Your task to perform on an android device: toggle improve location accuracy Image 0: 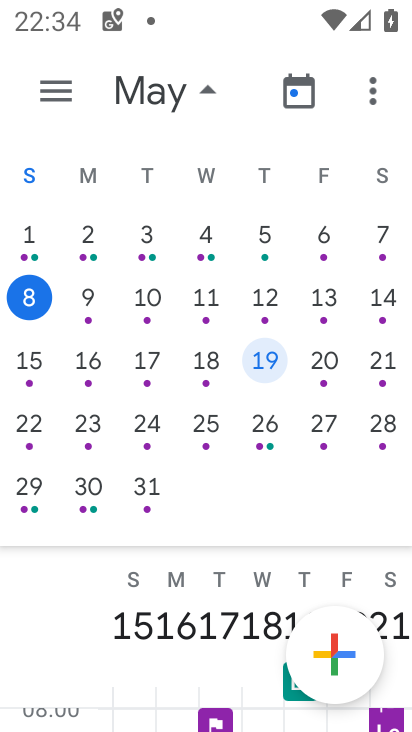
Step 0: press home button
Your task to perform on an android device: toggle improve location accuracy Image 1: 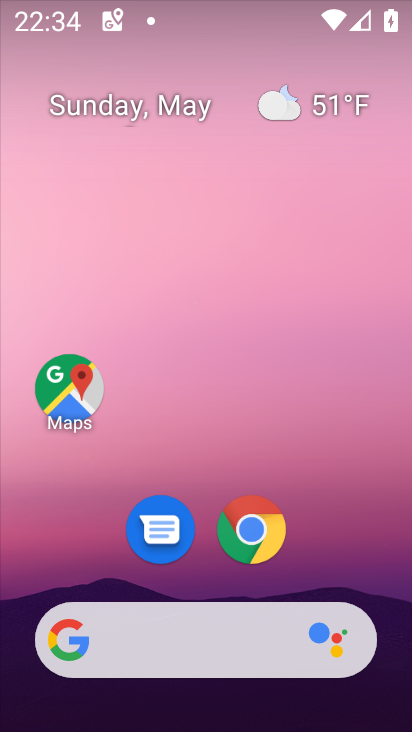
Step 1: drag from (250, 594) to (298, 136)
Your task to perform on an android device: toggle improve location accuracy Image 2: 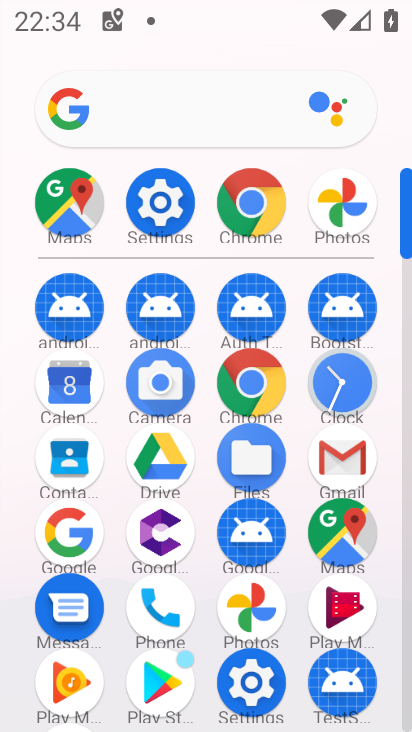
Step 2: click (229, 677)
Your task to perform on an android device: toggle improve location accuracy Image 3: 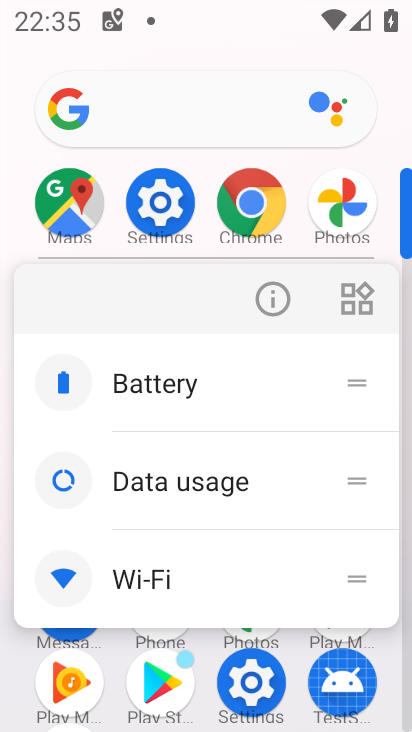
Step 3: click (253, 683)
Your task to perform on an android device: toggle improve location accuracy Image 4: 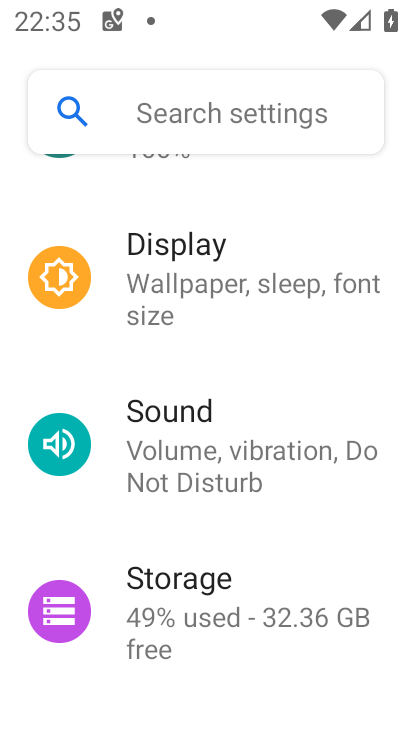
Step 4: drag from (241, 701) to (245, 382)
Your task to perform on an android device: toggle improve location accuracy Image 5: 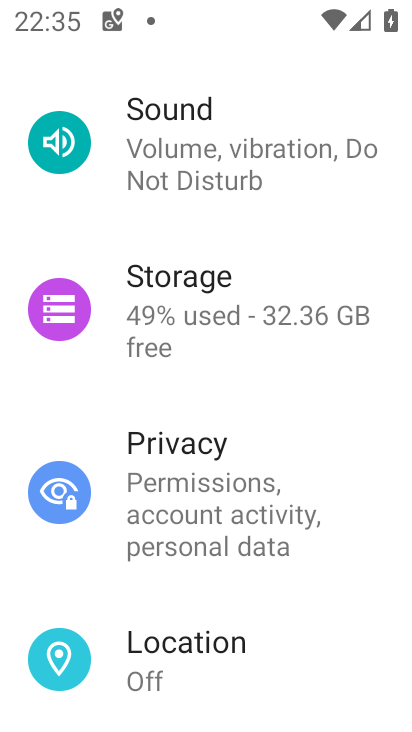
Step 5: click (143, 635)
Your task to perform on an android device: toggle improve location accuracy Image 6: 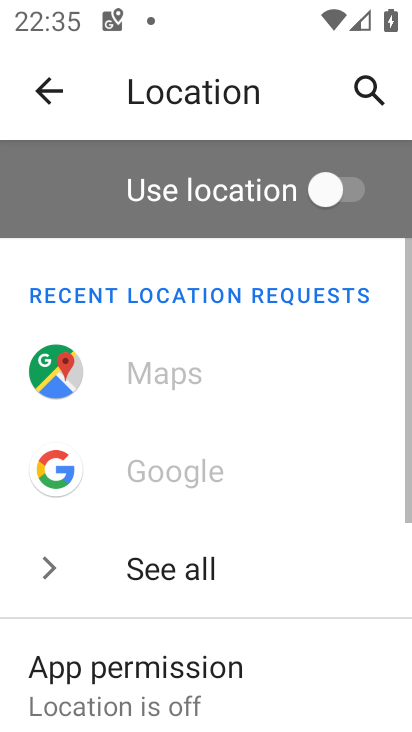
Step 6: drag from (157, 703) to (88, 296)
Your task to perform on an android device: toggle improve location accuracy Image 7: 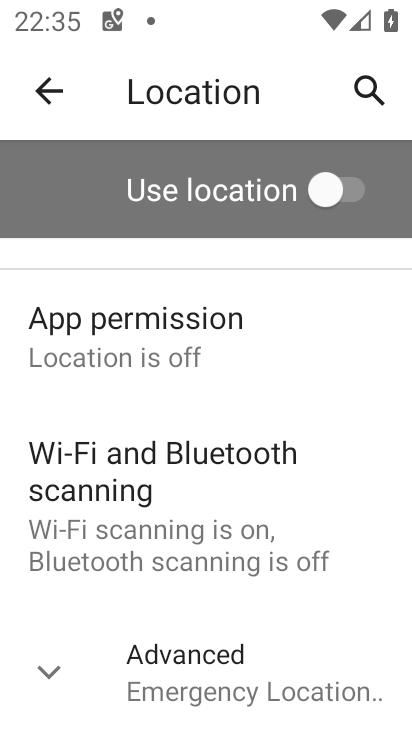
Step 7: click (132, 643)
Your task to perform on an android device: toggle improve location accuracy Image 8: 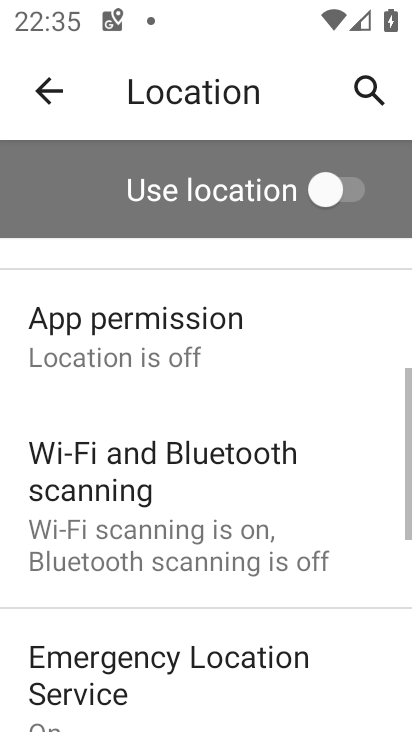
Step 8: drag from (140, 680) to (147, 268)
Your task to perform on an android device: toggle improve location accuracy Image 9: 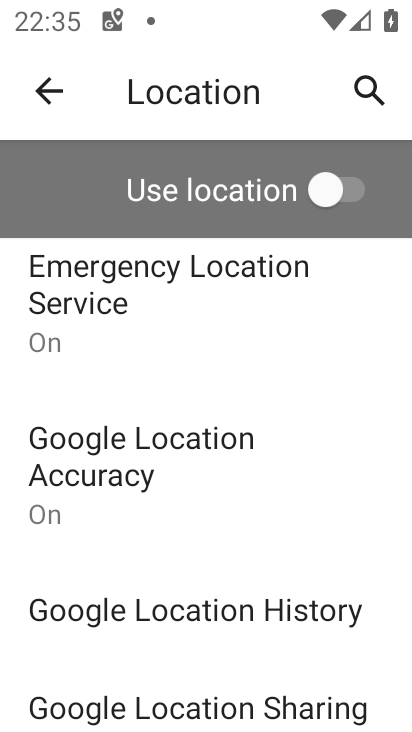
Step 9: click (152, 459)
Your task to perform on an android device: toggle improve location accuracy Image 10: 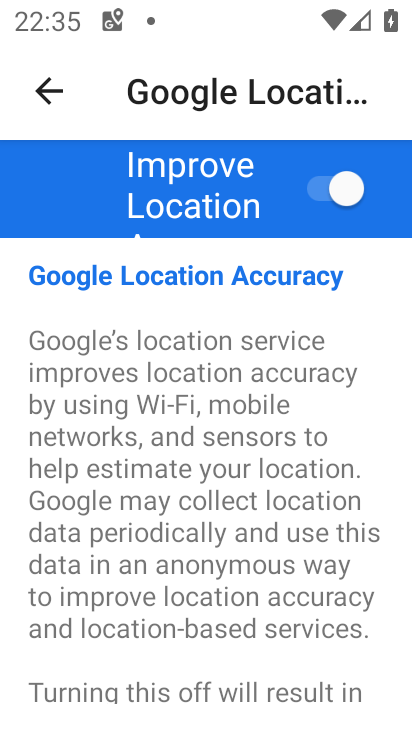
Step 10: click (326, 192)
Your task to perform on an android device: toggle improve location accuracy Image 11: 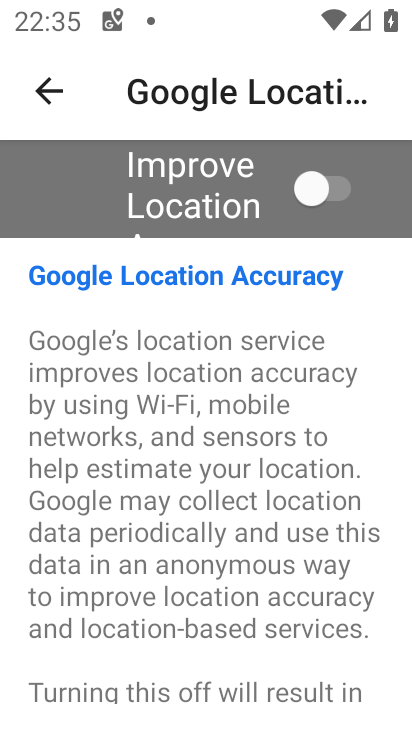
Step 11: task complete